Your task to perform on an android device: turn off picture-in-picture Image 0: 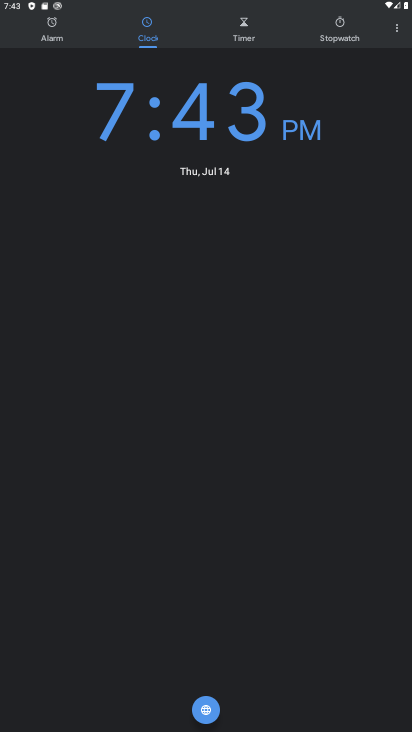
Step 0: drag from (240, 580) to (254, 379)
Your task to perform on an android device: turn off picture-in-picture Image 1: 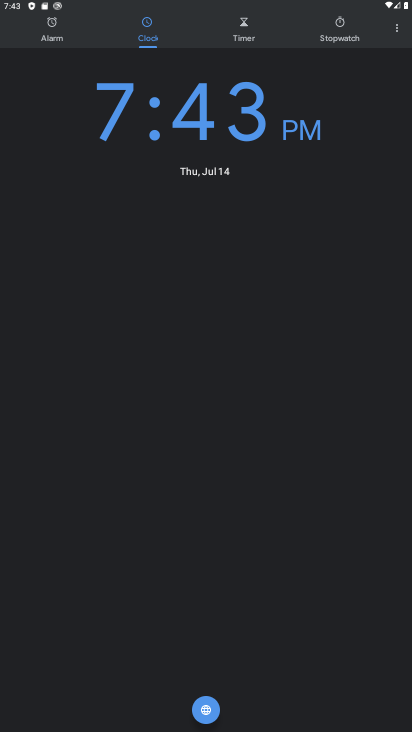
Step 1: press home button
Your task to perform on an android device: turn off picture-in-picture Image 2: 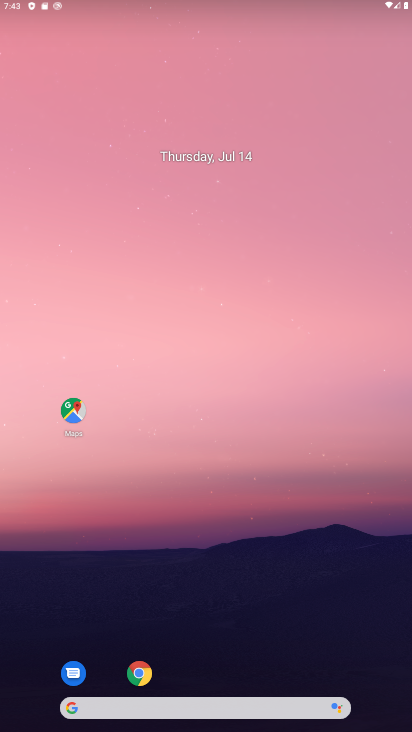
Step 2: drag from (147, 582) to (170, 243)
Your task to perform on an android device: turn off picture-in-picture Image 3: 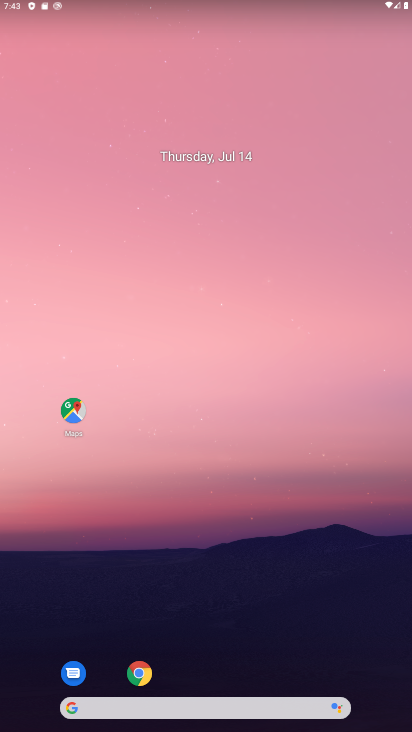
Step 3: drag from (213, 626) to (224, 162)
Your task to perform on an android device: turn off picture-in-picture Image 4: 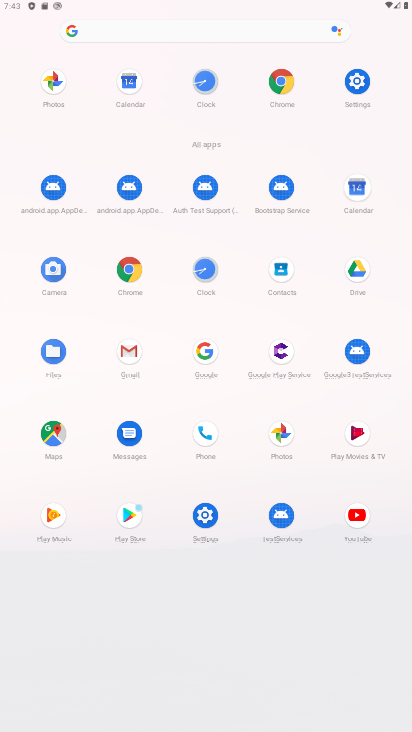
Step 4: click (196, 510)
Your task to perform on an android device: turn off picture-in-picture Image 5: 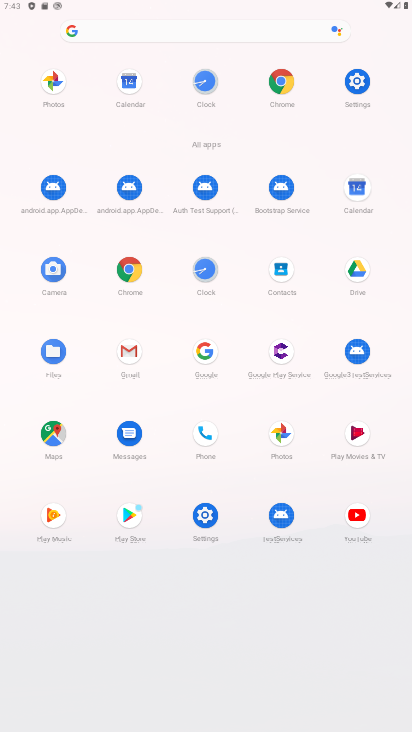
Step 5: click (197, 510)
Your task to perform on an android device: turn off picture-in-picture Image 6: 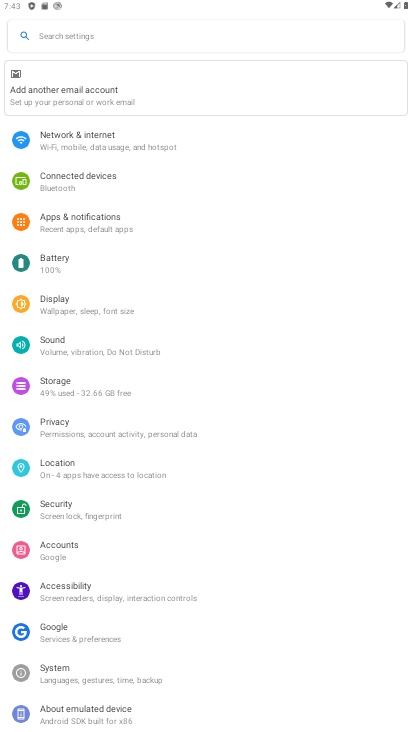
Step 6: drag from (179, 579) to (224, 280)
Your task to perform on an android device: turn off picture-in-picture Image 7: 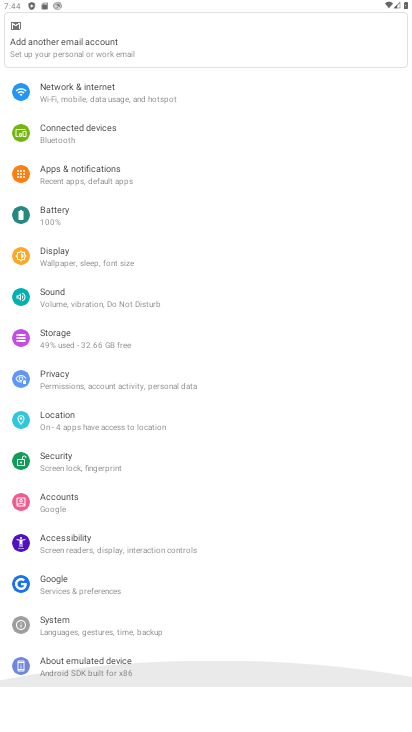
Step 7: drag from (251, 169) to (224, 629)
Your task to perform on an android device: turn off picture-in-picture Image 8: 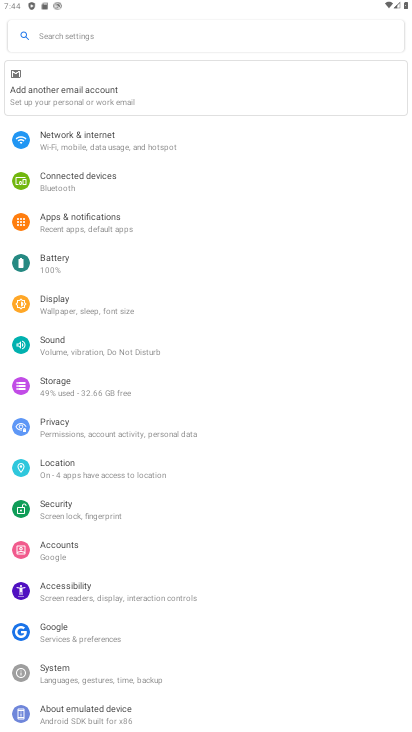
Step 8: click (112, 223)
Your task to perform on an android device: turn off picture-in-picture Image 9: 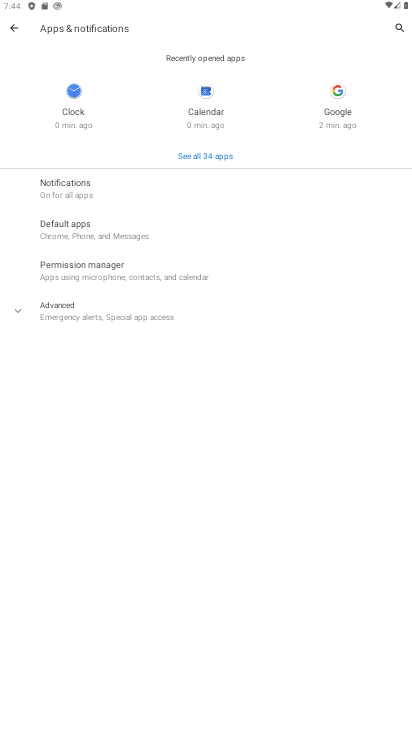
Step 9: click (73, 311)
Your task to perform on an android device: turn off picture-in-picture Image 10: 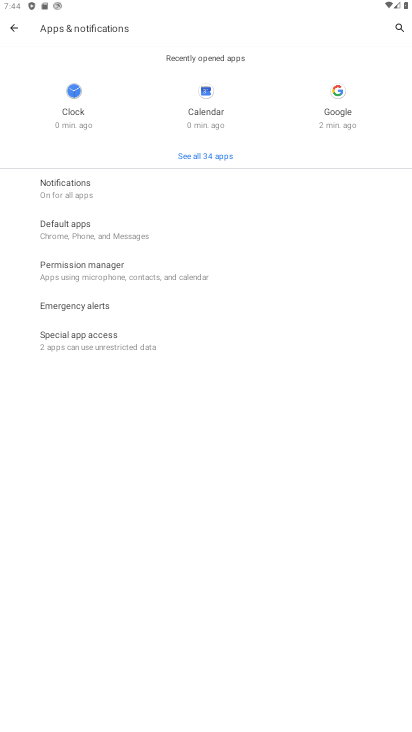
Step 10: click (89, 335)
Your task to perform on an android device: turn off picture-in-picture Image 11: 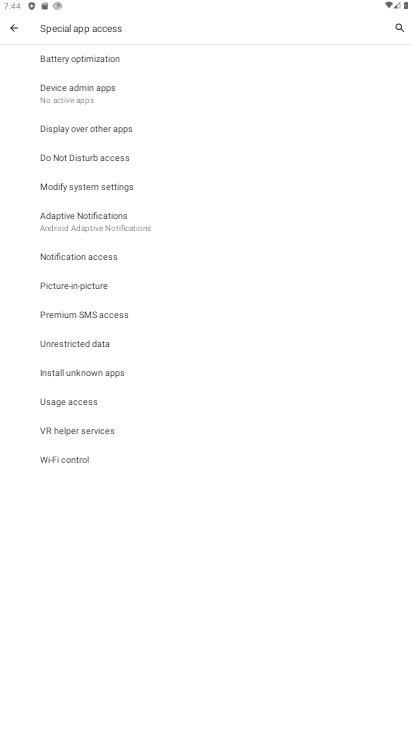
Step 11: click (119, 288)
Your task to perform on an android device: turn off picture-in-picture Image 12: 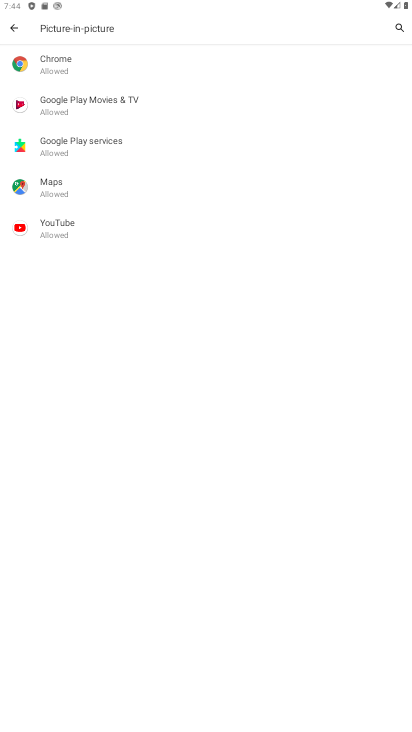
Step 12: drag from (190, 454) to (202, 312)
Your task to perform on an android device: turn off picture-in-picture Image 13: 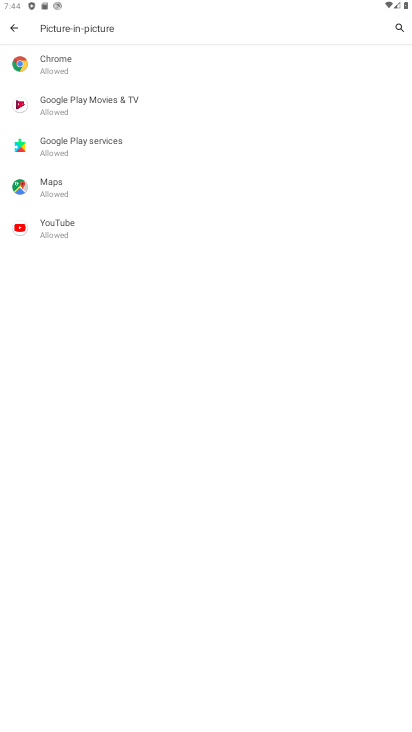
Step 13: drag from (183, 120) to (232, 487)
Your task to perform on an android device: turn off picture-in-picture Image 14: 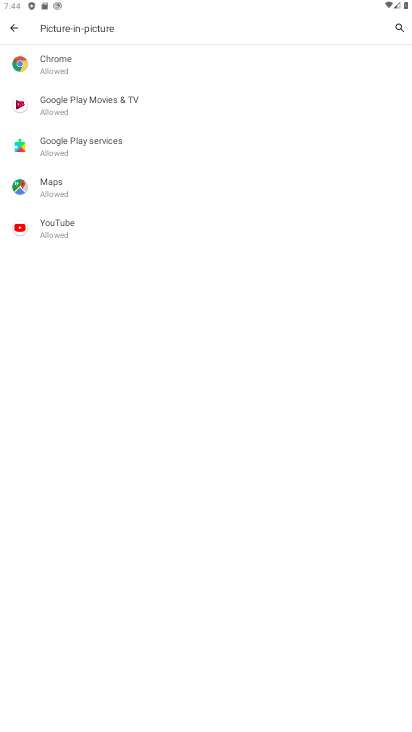
Step 14: click (143, 61)
Your task to perform on an android device: turn off picture-in-picture Image 15: 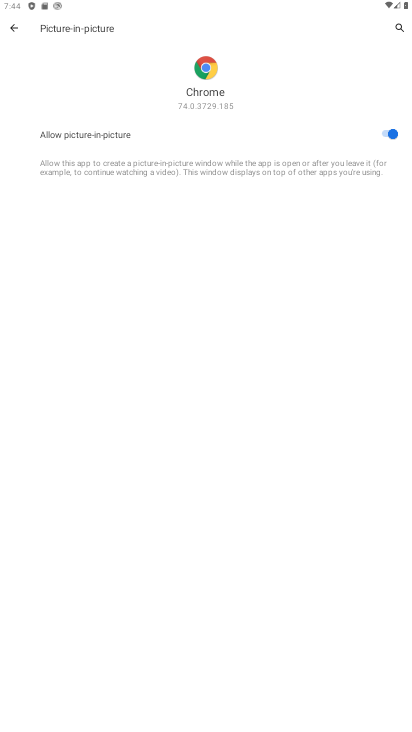
Step 15: click (387, 139)
Your task to perform on an android device: turn off picture-in-picture Image 16: 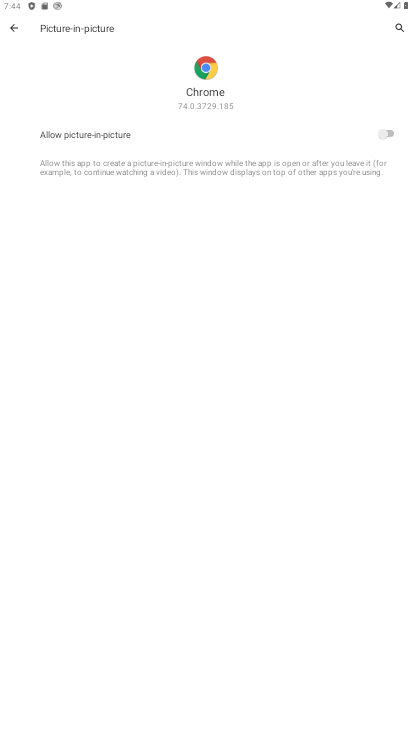
Step 16: task complete